Your task to perform on an android device: Go to Reddit.com Image 0: 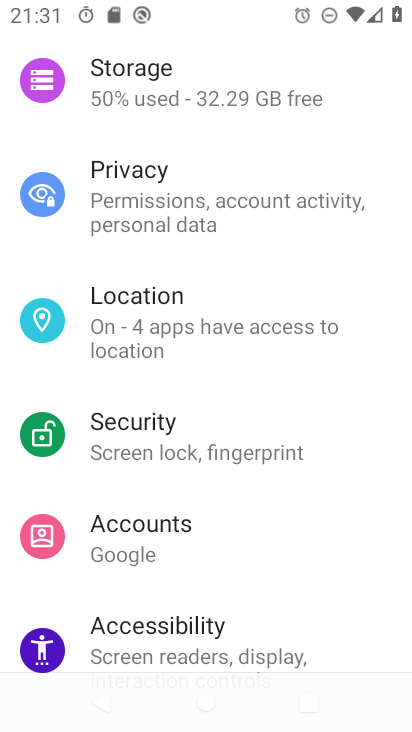
Step 0: press home button
Your task to perform on an android device: Go to Reddit.com Image 1: 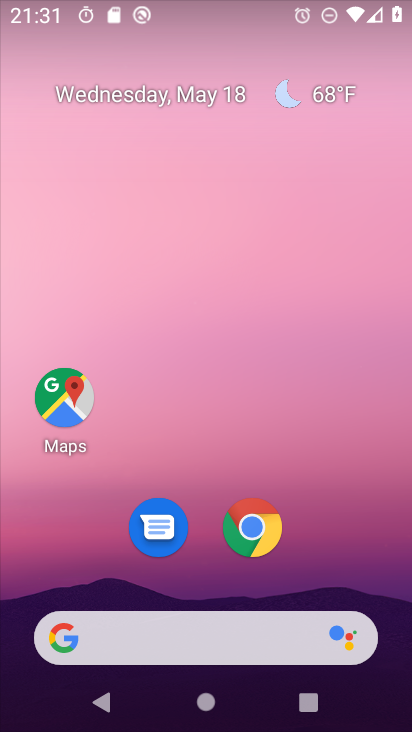
Step 1: click (249, 539)
Your task to perform on an android device: Go to Reddit.com Image 2: 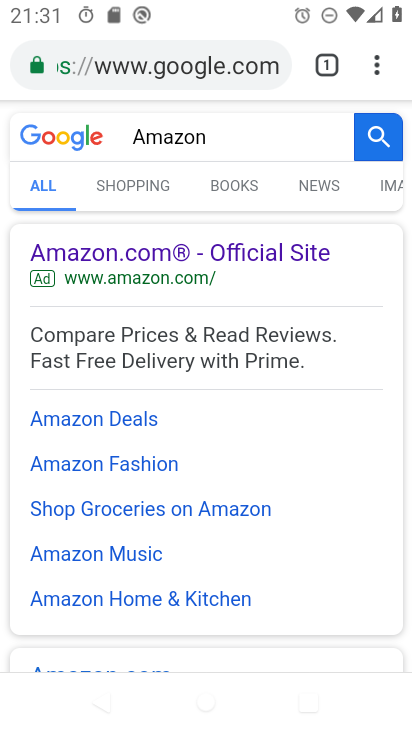
Step 2: click (274, 65)
Your task to perform on an android device: Go to Reddit.com Image 3: 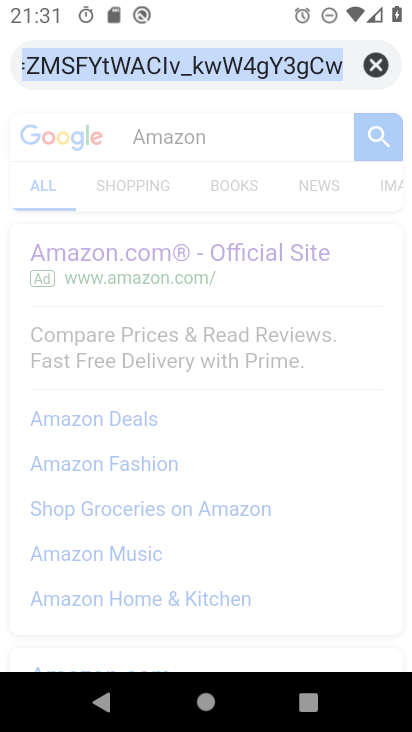
Step 3: click (371, 69)
Your task to perform on an android device: Go to Reddit.com Image 4: 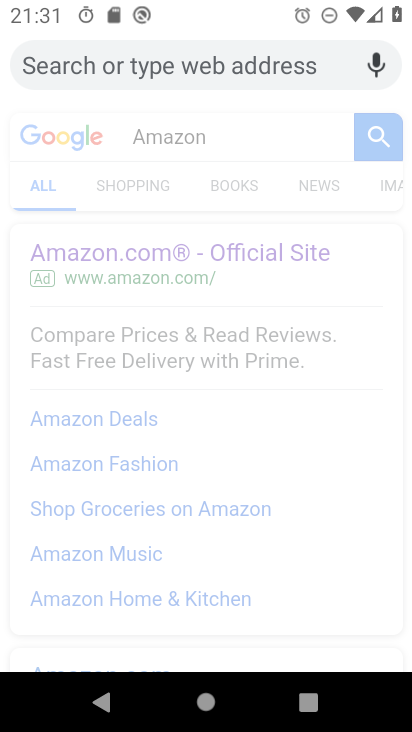
Step 4: type "Reddit.com"
Your task to perform on an android device: Go to Reddit.com Image 5: 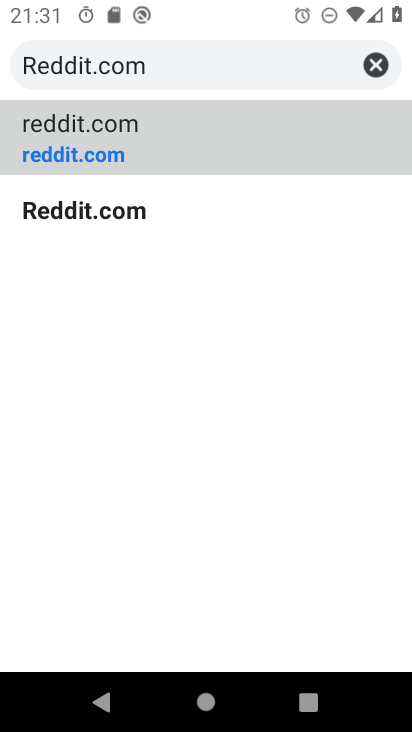
Step 5: click (76, 207)
Your task to perform on an android device: Go to Reddit.com Image 6: 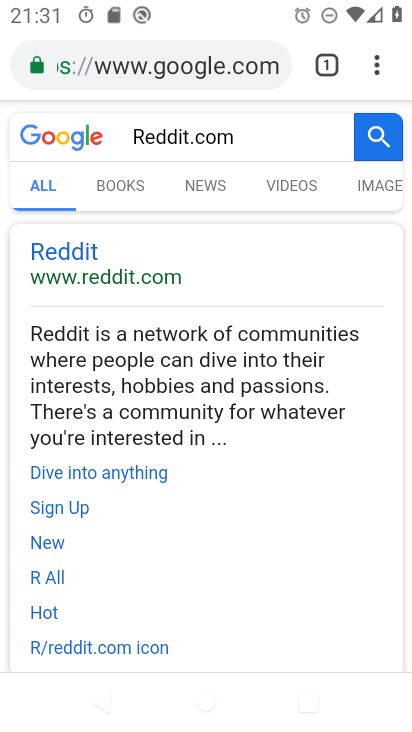
Step 6: task complete